Your task to perform on an android device: Open eBay Image 0: 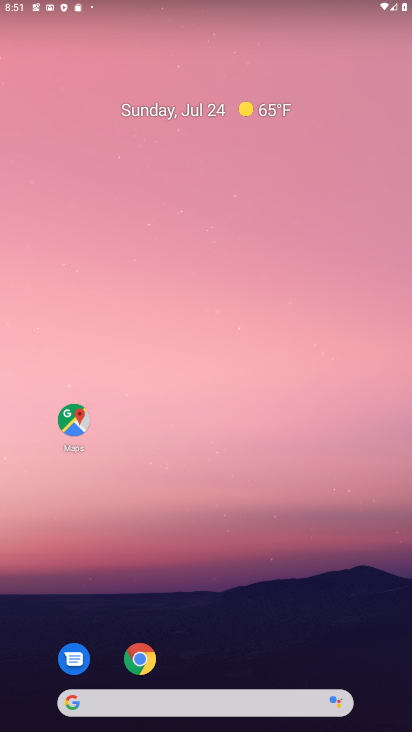
Step 0: click (138, 662)
Your task to perform on an android device: Open eBay Image 1: 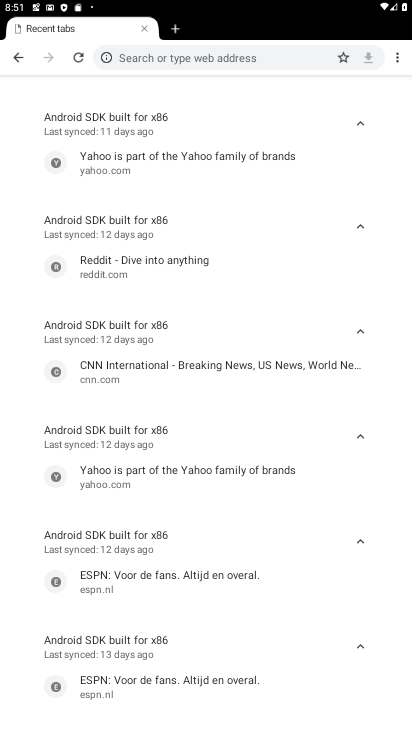
Step 1: click (18, 57)
Your task to perform on an android device: Open eBay Image 2: 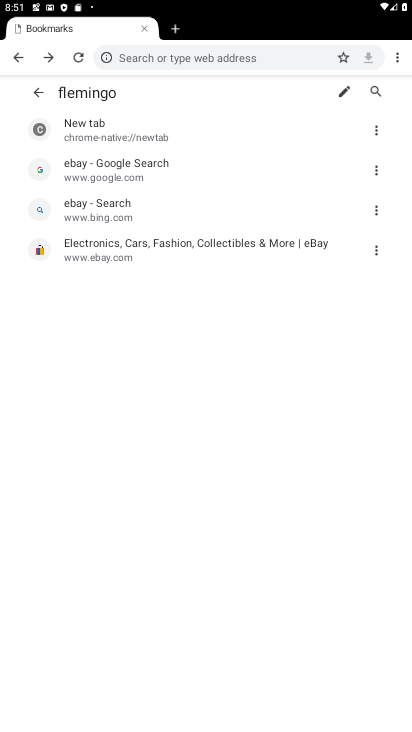
Step 2: click (18, 57)
Your task to perform on an android device: Open eBay Image 3: 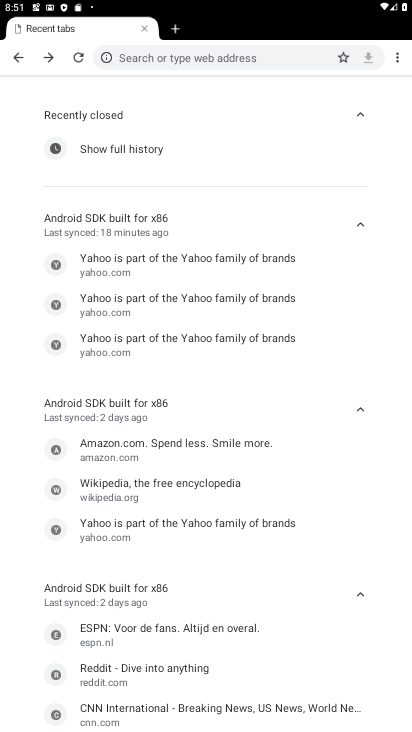
Step 3: click (17, 57)
Your task to perform on an android device: Open eBay Image 4: 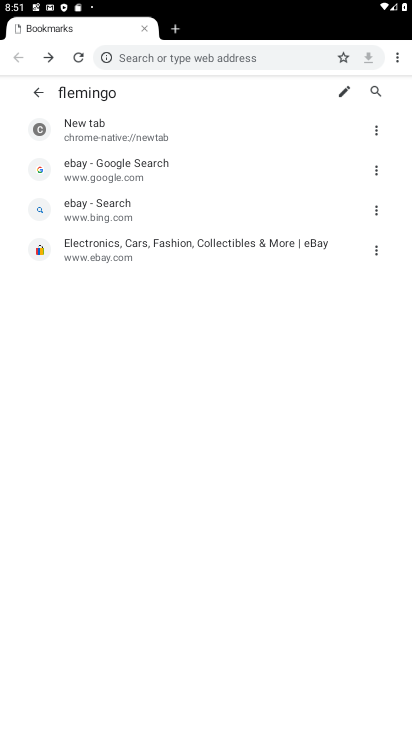
Step 4: click (75, 171)
Your task to perform on an android device: Open eBay Image 5: 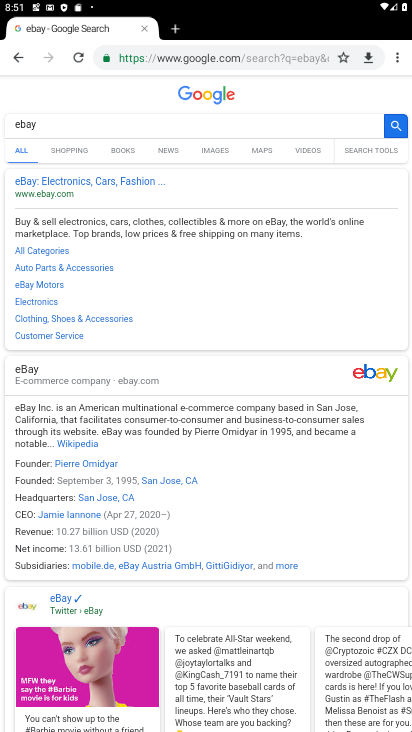
Step 5: click (23, 187)
Your task to perform on an android device: Open eBay Image 6: 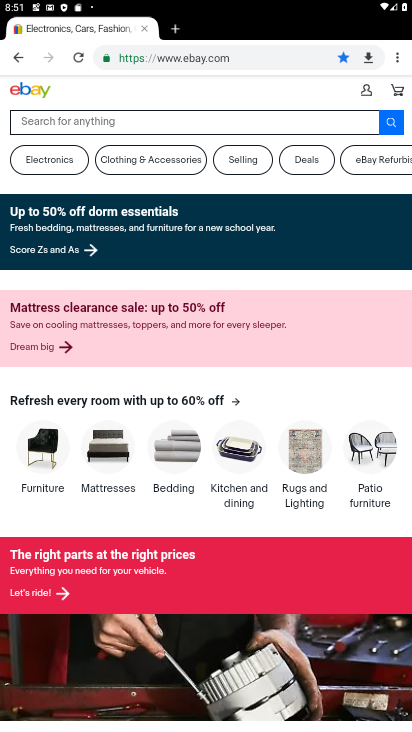
Step 6: task complete